Your task to perform on an android device: turn off translation in the chrome app Image 0: 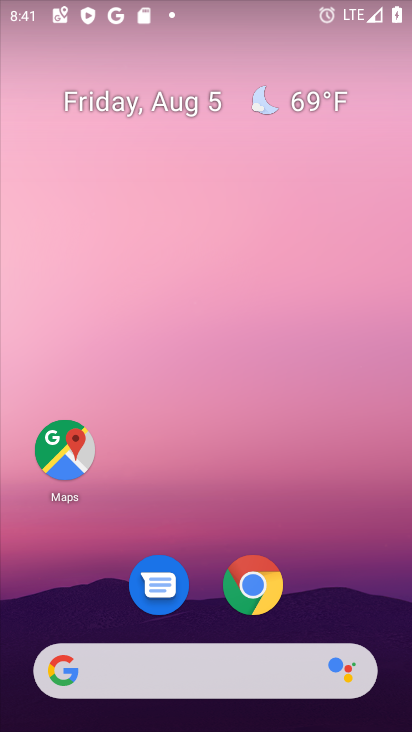
Step 0: click (251, 580)
Your task to perform on an android device: turn off translation in the chrome app Image 1: 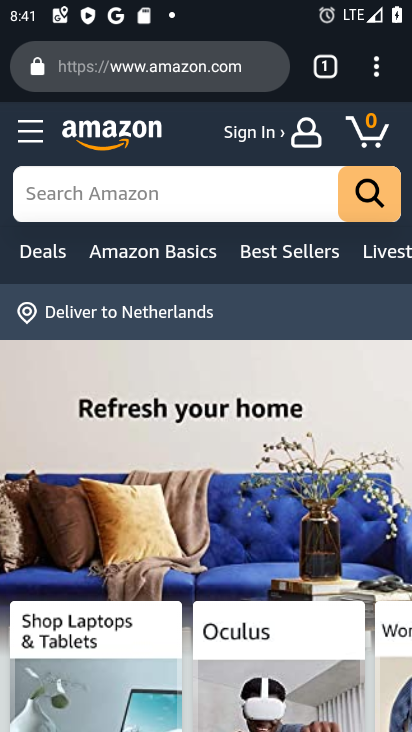
Step 1: press back button
Your task to perform on an android device: turn off translation in the chrome app Image 2: 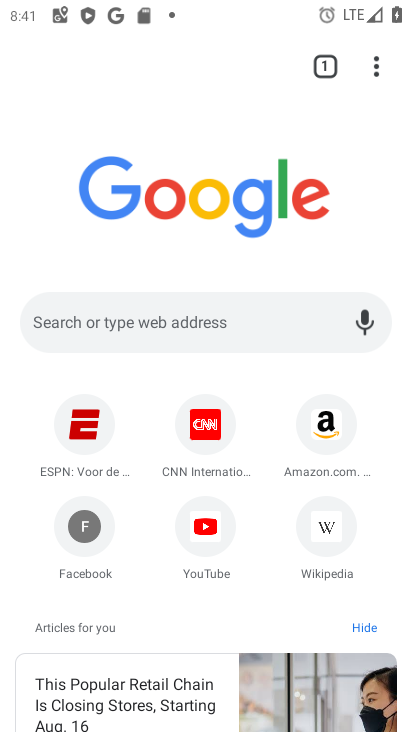
Step 2: click (374, 66)
Your task to perform on an android device: turn off translation in the chrome app Image 3: 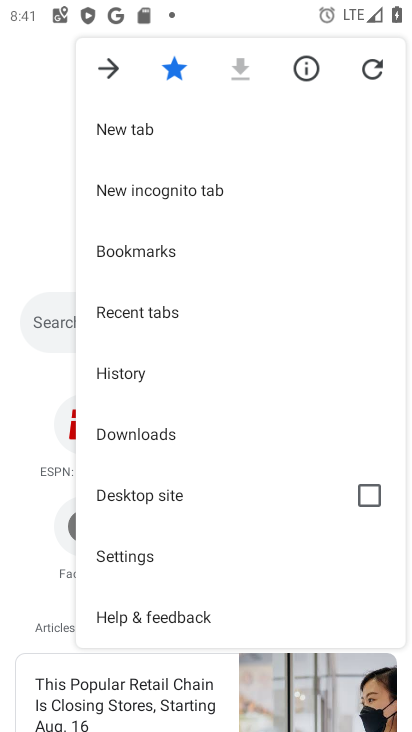
Step 3: click (142, 547)
Your task to perform on an android device: turn off translation in the chrome app Image 4: 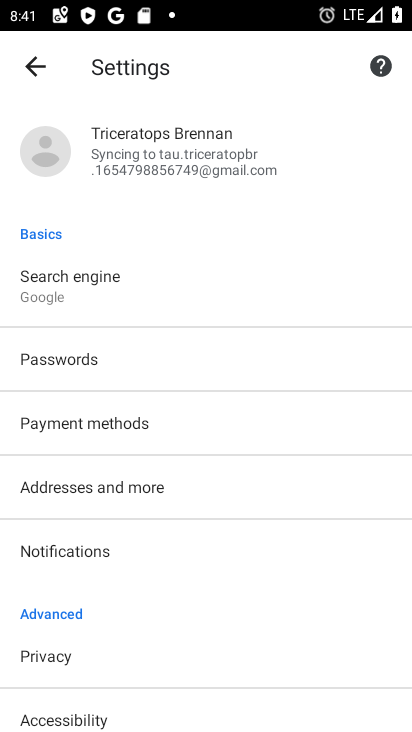
Step 4: drag from (180, 582) to (259, 23)
Your task to perform on an android device: turn off translation in the chrome app Image 5: 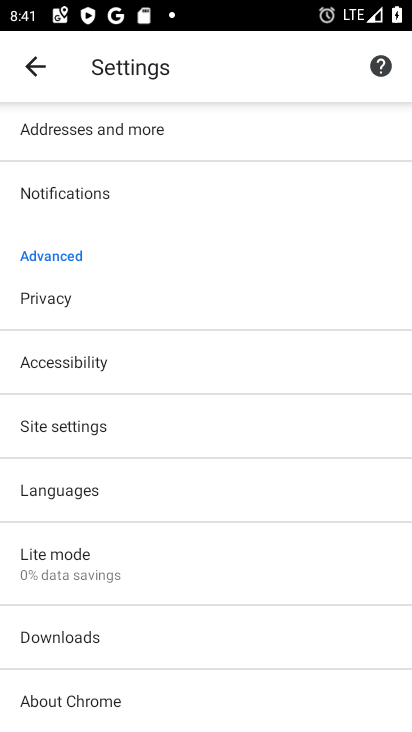
Step 5: click (151, 487)
Your task to perform on an android device: turn off translation in the chrome app Image 6: 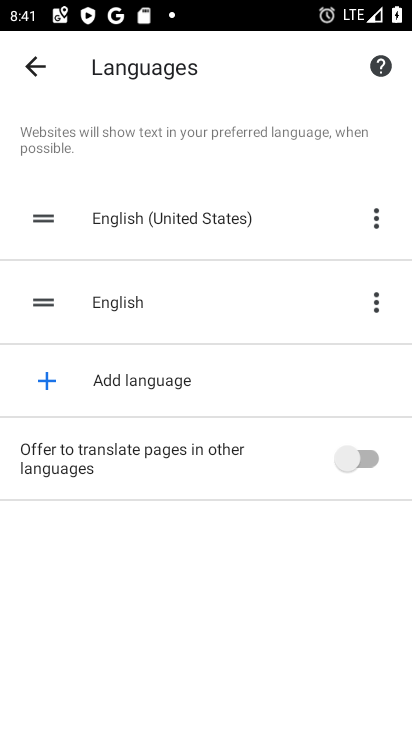
Step 6: task complete